Your task to perform on an android device: Go to location settings Image 0: 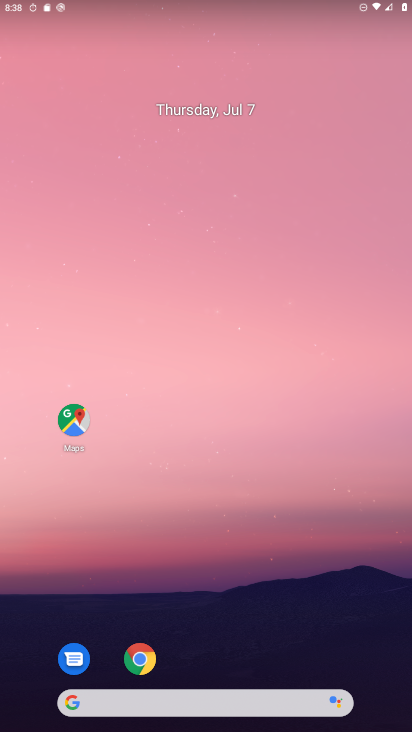
Step 0: drag from (381, 613) to (251, 48)
Your task to perform on an android device: Go to location settings Image 1: 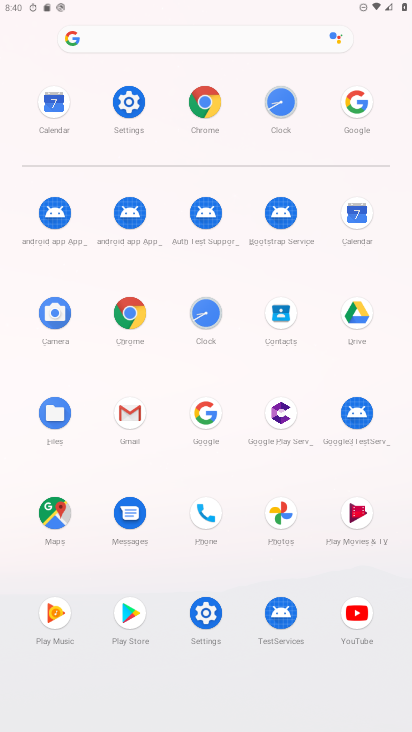
Step 1: click (212, 623)
Your task to perform on an android device: Go to location settings Image 2: 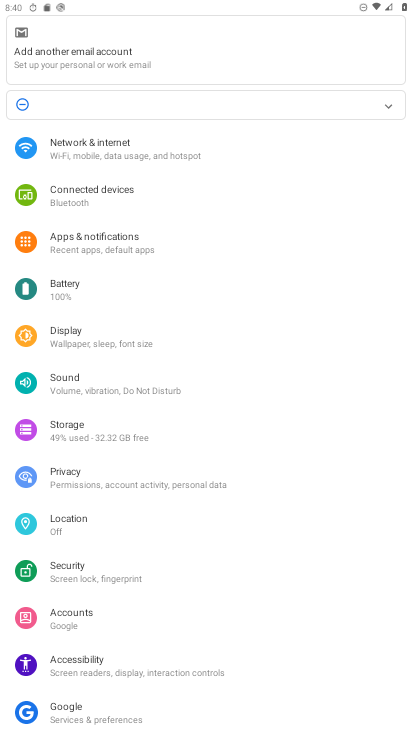
Step 2: click (69, 517)
Your task to perform on an android device: Go to location settings Image 3: 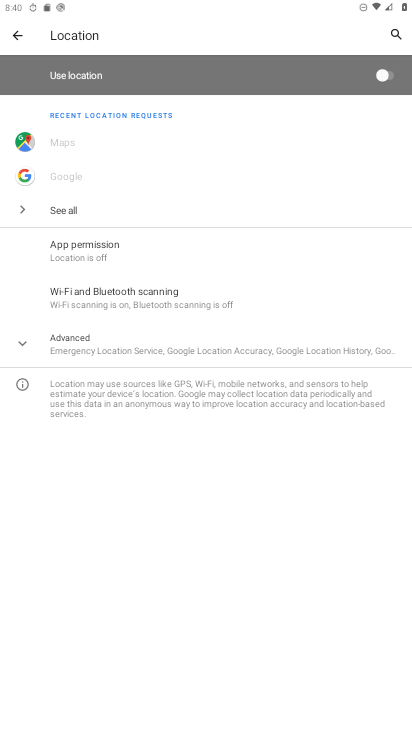
Step 3: task complete